Your task to perform on an android device: change the clock display to show seconds Image 0: 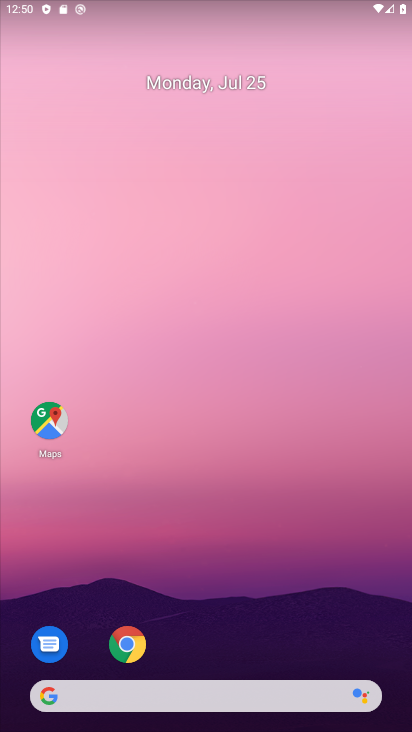
Step 0: drag from (224, 534) to (219, 85)
Your task to perform on an android device: change the clock display to show seconds Image 1: 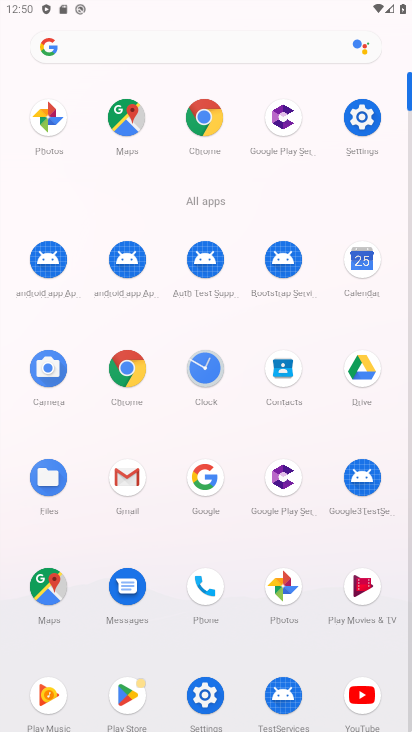
Step 1: click (204, 371)
Your task to perform on an android device: change the clock display to show seconds Image 2: 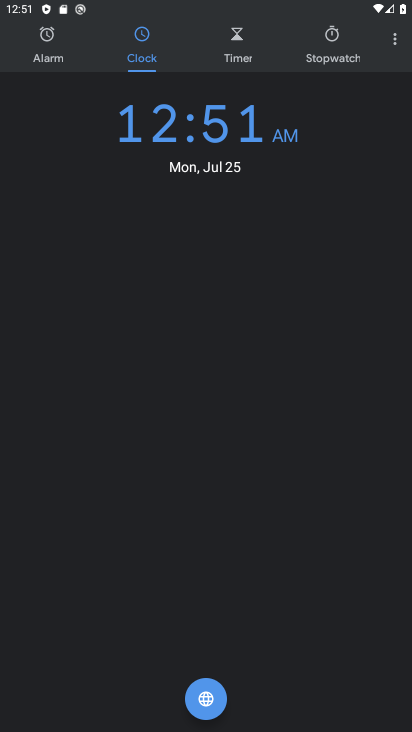
Step 2: click (392, 38)
Your task to perform on an android device: change the clock display to show seconds Image 3: 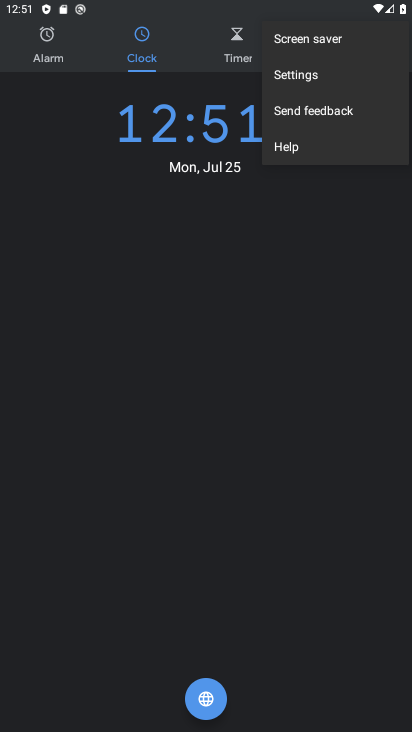
Step 3: click (302, 79)
Your task to perform on an android device: change the clock display to show seconds Image 4: 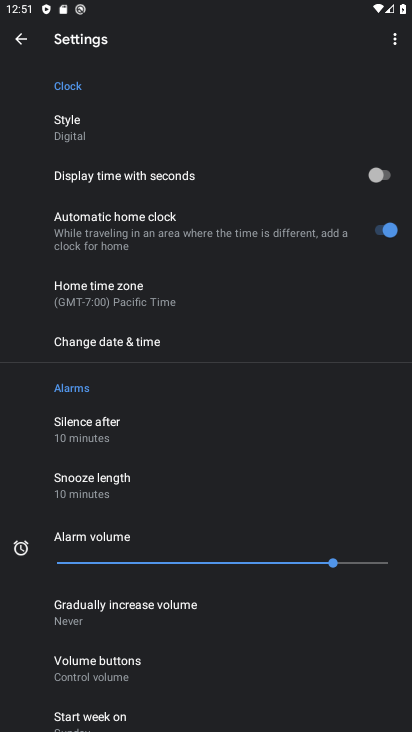
Step 4: click (376, 178)
Your task to perform on an android device: change the clock display to show seconds Image 5: 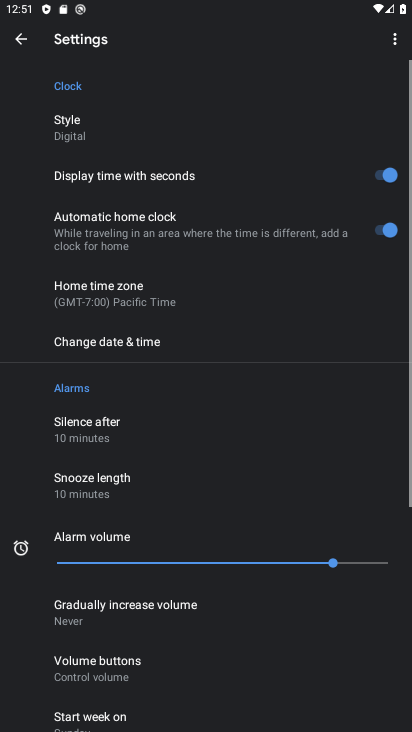
Step 5: task complete